Your task to perform on an android device: set default search engine in the chrome app Image 0: 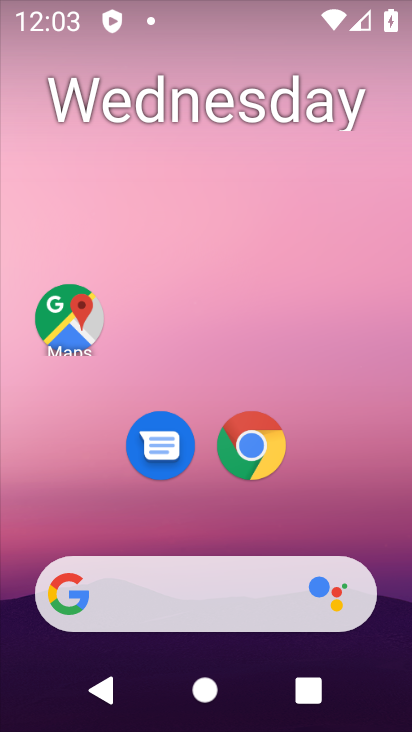
Step 0: click (250, 439)
Your task to perform on an android device: set default search engine in the chrome app Image 1: 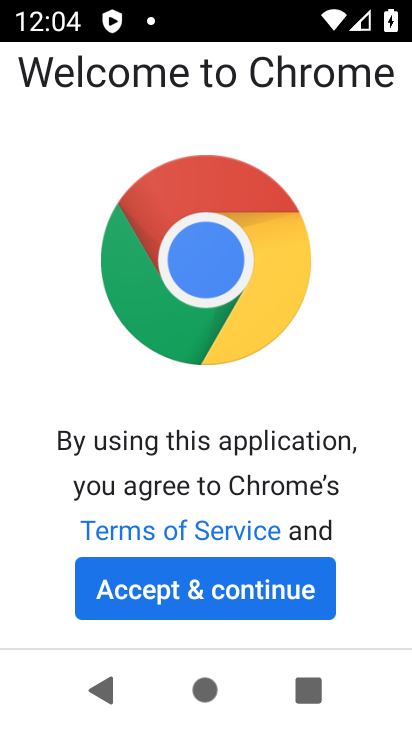
Step 1: click (233, 593)
Your task to perform on an android device: set default search engine in the chrome app Image 2: 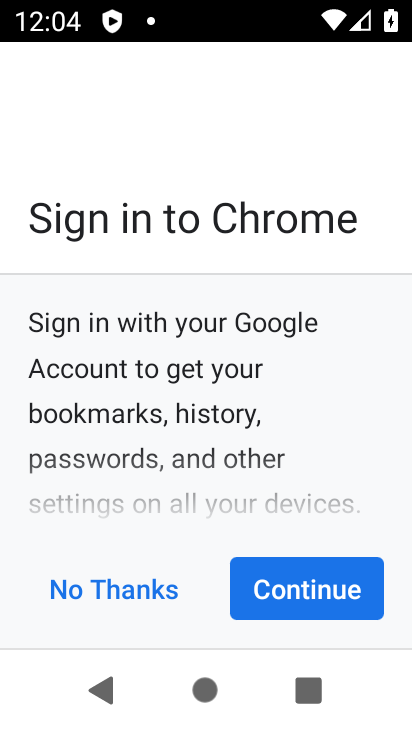
Step 2: click (309, 601)
Your task to perform on an android device: set default search engine in the chrome app Image 3: 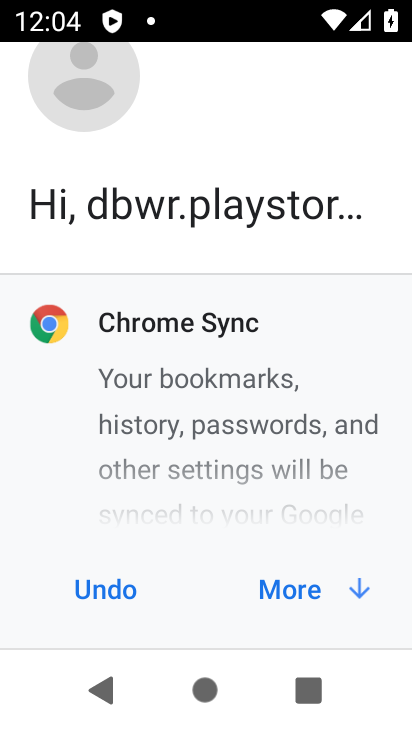
Step 3: click (318, 594)
Your task to perform on an android device: set default search engine in the chrome app Image 4: 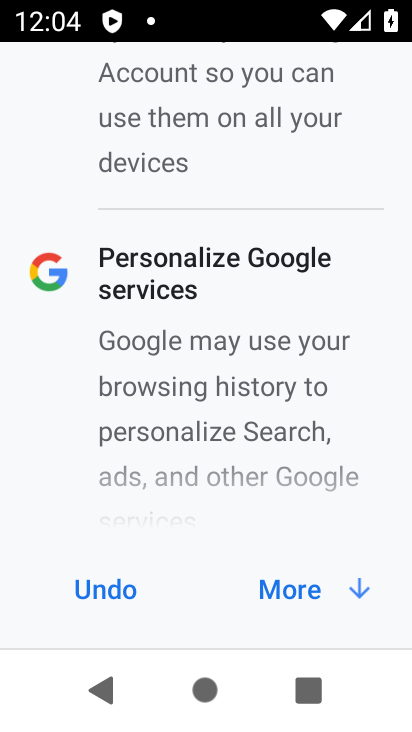
Step 4: click (261, 589)
Your task to perform on an android device: set default search engine in the chrome app Image 5: 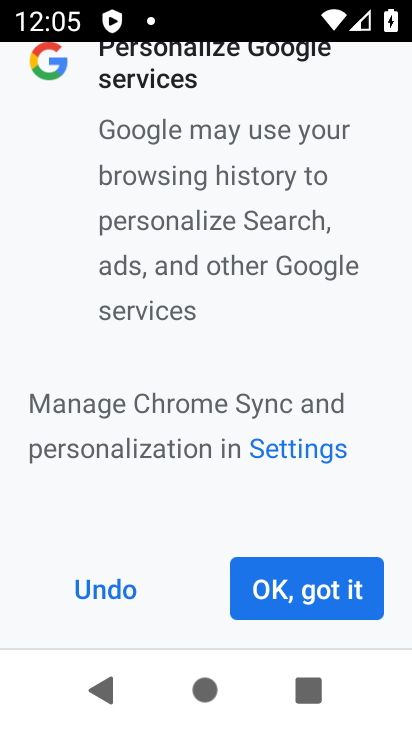
Step 5: click (336, 598)
Your task to perform on an android device: set default search engine in the chrome app Image 6: 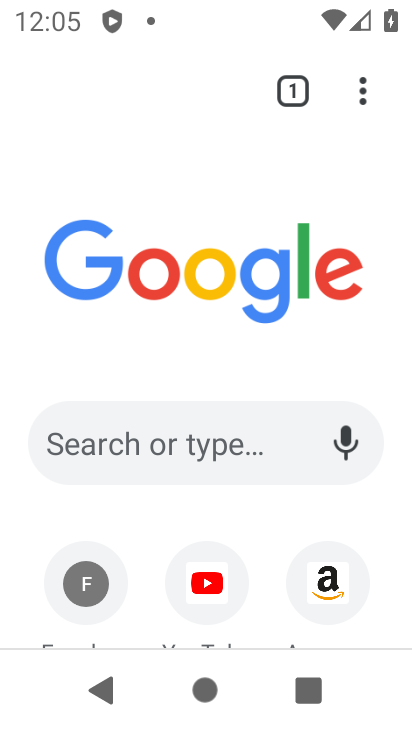
Step 6: click (364, 89)
Your task to perform on an android device: set default search engine in the chrome app Image 7: 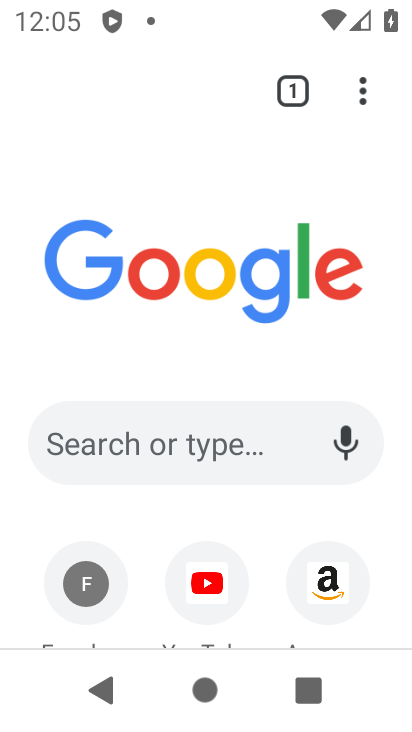
Step 7: click (364, 85)
Your task to perform on an android device: set default search engine in the chrome app Image 8: 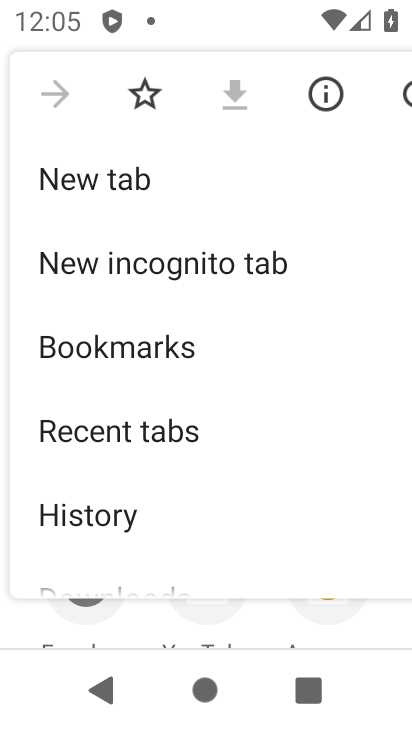
Step 8: drag from (103, 559) to (219, 290)
Your task to perform on an android device: set default search engine in the chrome app Image 9: 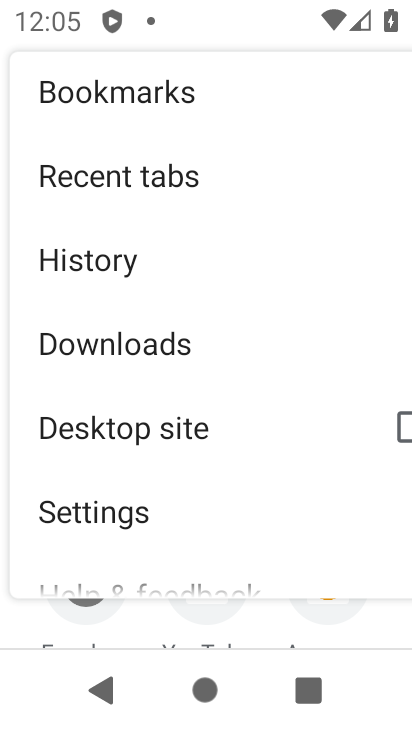
Step 9: click (128, 526)
Your task to perform on an android device: set default search engine in the chrome app Image 10: 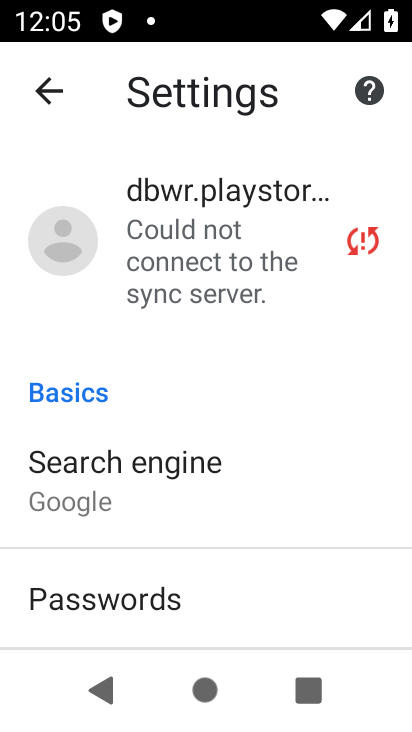
Step 10: task complete